Your task to perform on an android device: Where can I buy a nice beach sandals? Image 0: 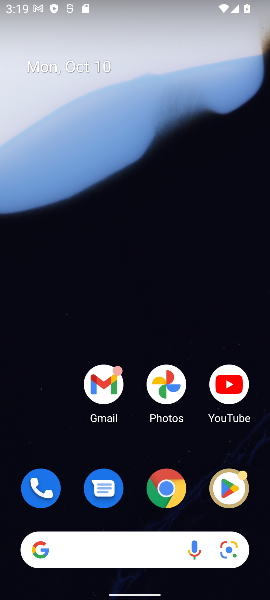
Step 0: drag from (31, 411) to (95, 34)
Your task to perform on an android device: Where can I buy a nice beach sandals? Image 1: 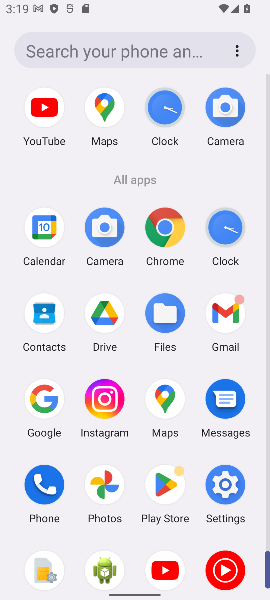
Step 1: drag from (50, 403) to (28, 436)
Your task to perform on an android device: Where can I buy a nice beach sandals? Image 2: 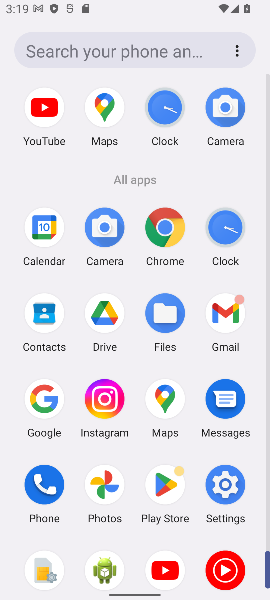
Step 2: click (48, 399)
Your task to perform on an android device: Where can I buy a nice beach sandals? Image 3: 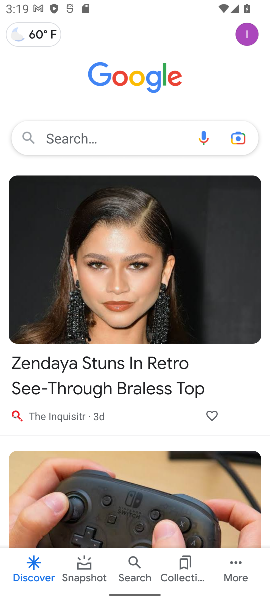
Step 3: type "Where can I buy a nice beach sandals"
Your task to perform on an android device: Where can I buy a nice beach sandals? Image 4: 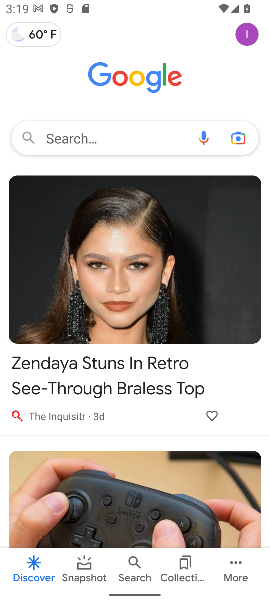
Step 4: click (58, 133)
Your task to perform on an android device: Where can I buy a nice beach sandals? Image 5: 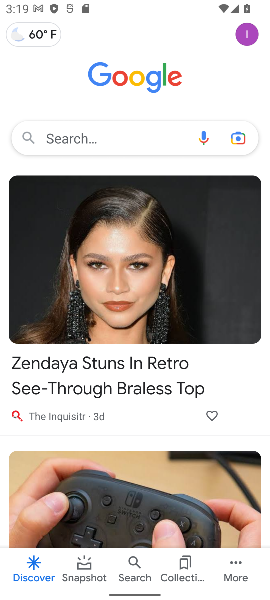
Step 5: click (88, 138)
Your task to perform on an android device: Where can I buy a nice beach sandals? Image 6: 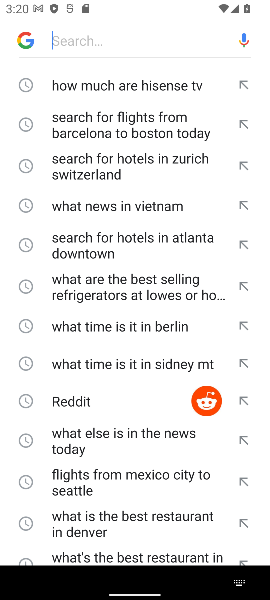
Step 6: click (92, 35)
Your task to perform on an android device: Where can I buy a nice beach sandals? Image 7: 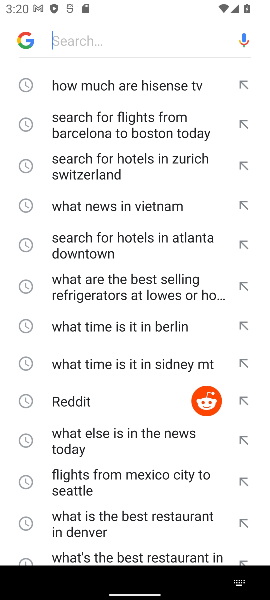
Step 7: type "Where can I buy a nice beach sandals"
Your task to perform on an android device: Where can I buy a nice beach sandals? Image 8: 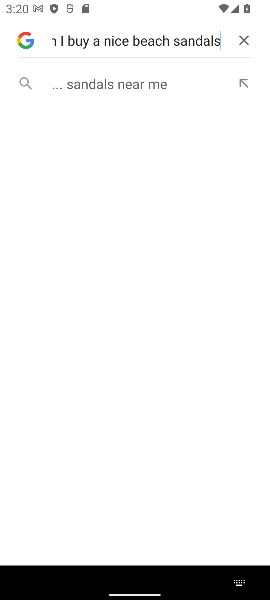
Step 8: click (134, 70)
Your task to perform on an android device: Where can I buy a nice beach sandals? Image 9: 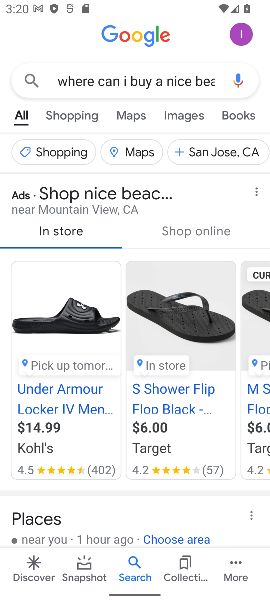
Step 9: task complete